Your task to perform on an android device: Go to Google maps Image 0: 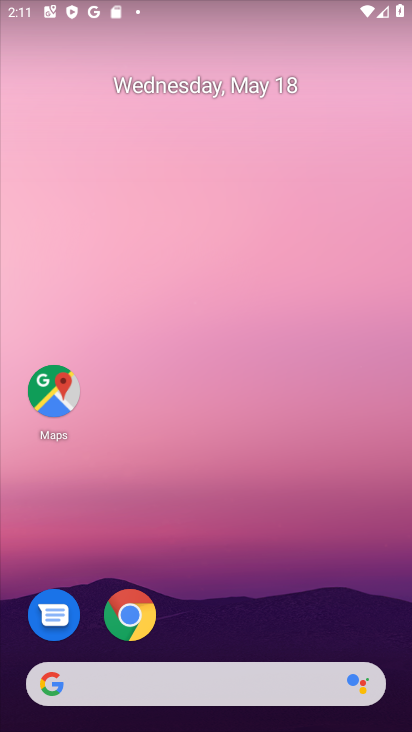
Step 0: click (66, 380)
Your task to perform on an android device: Go to Google maps Image 1: 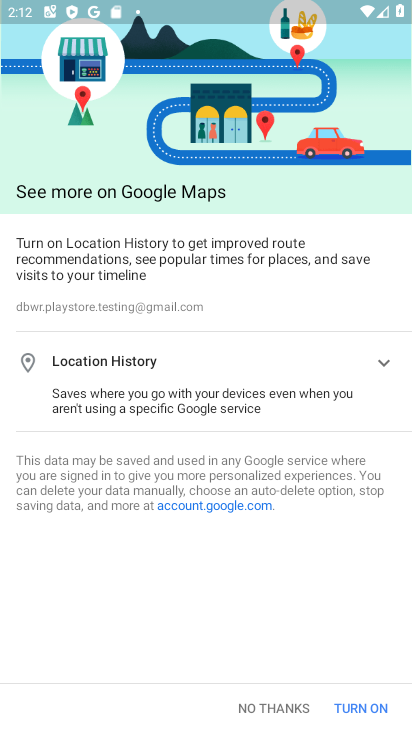
Step 1: click (270, 711)
Your task to perform on an android device: Go to Google maps Image 2: 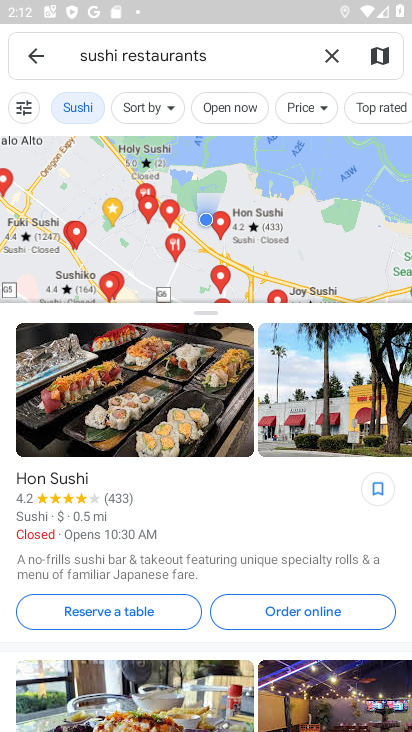
Step 2: task complete